Your task to perform on an android device: turn off javascript in the chrome app Image 0: 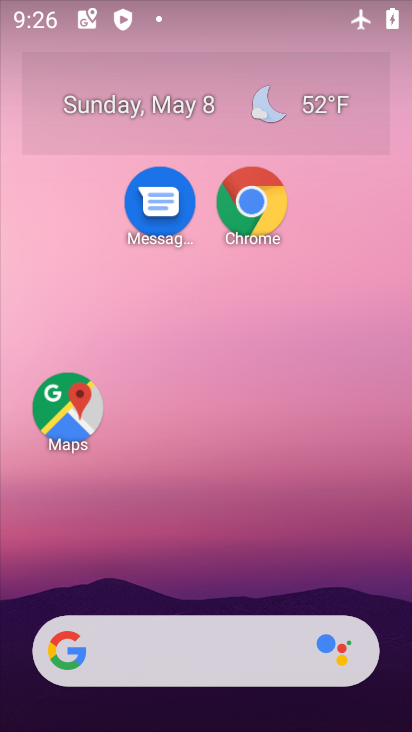
Step 0: drag from (234, 605) to (327, 4)
Your task to perform on an android device: turn off javascript in the chrome app Image 1: 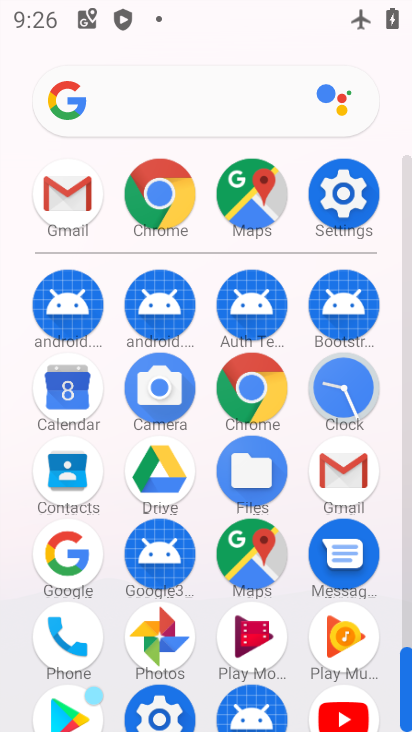
Step 1: click (259, 392)
Your task to perform on an android device: turn off javascript in the chrome app Image 2: 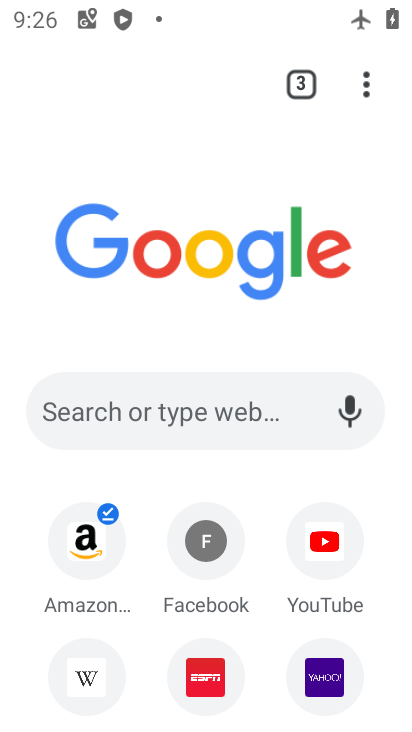
Step 2: click (358, 88)
Your task to perform on an android device: turn off javascript in the chrome app Image 3: 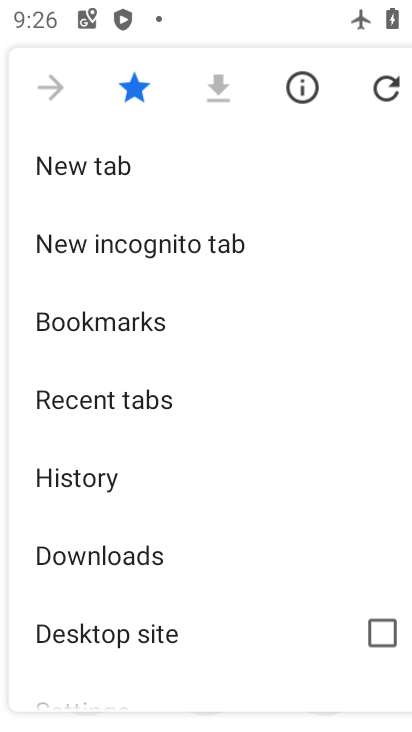
Step 3: drag from (242, 578) to (235, 100)
Your task to perform on an android device: turn off javascript in the chrome app Image 4: 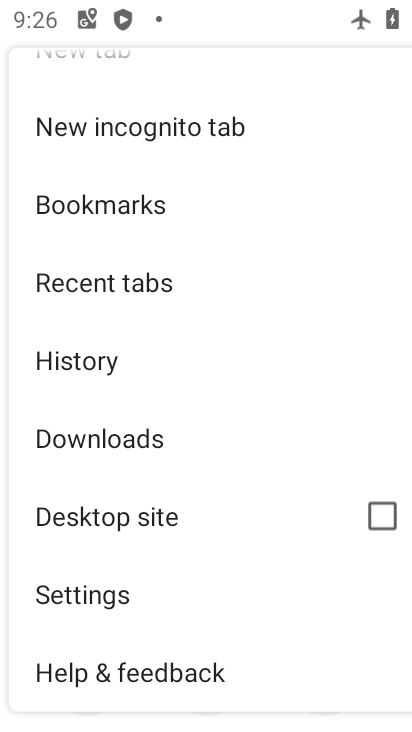
Step 4: click (83, 593)
Your task to perform on an android device: turn off javascript in the chrome app Image 5: 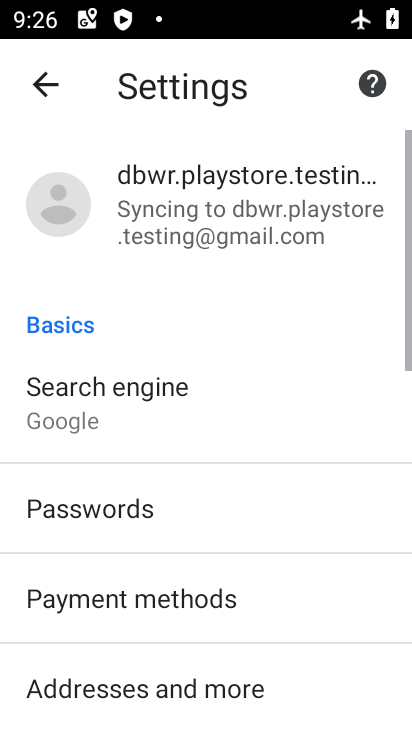
Step 5: drag from (185, 590) to (111, 57)
Your task to perform on an android device: turn off javascript in the chrome app Image 6: 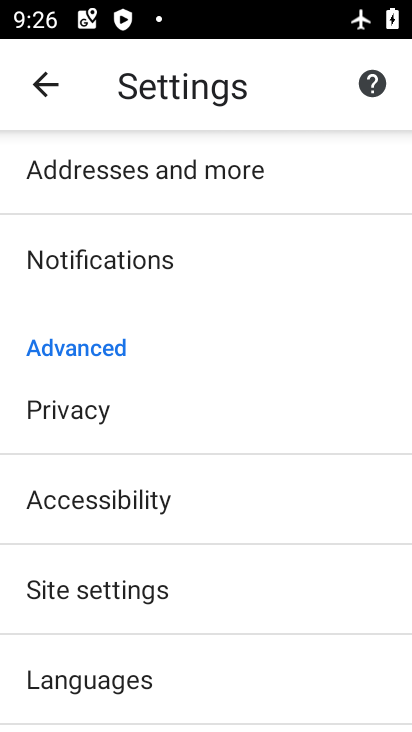
Step 6: click (120, 581)
Your task to perform on an android device: turn off javascript in the chrome app Image 7: 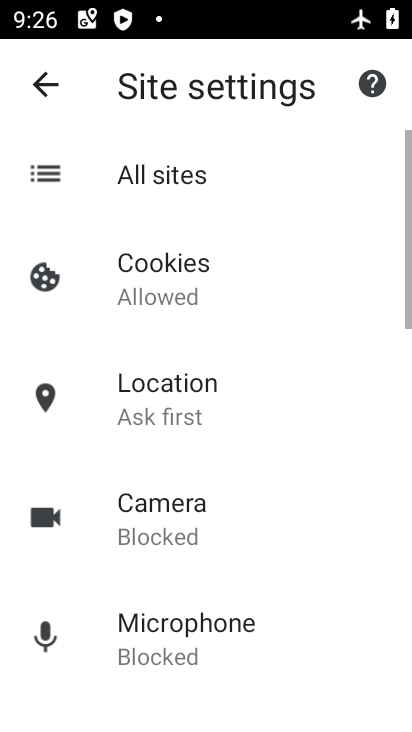
Step 7: drag from (171, 639) to (98, 88)
Your task to perform on an android device: turn off javascript in the chrome app Image 8: 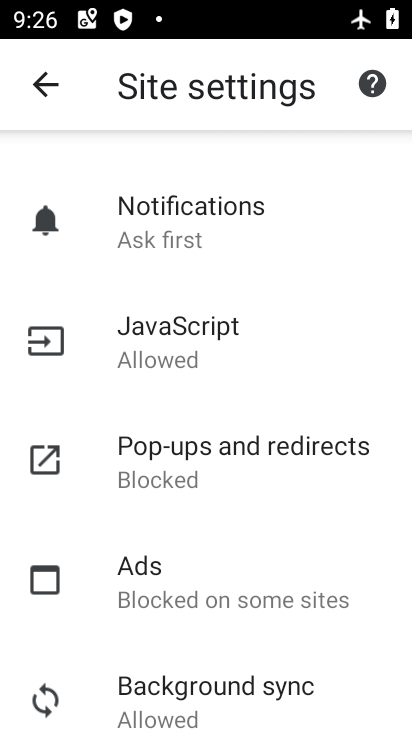
Step 8: click (145, 361)
Your task to perform on an android device: turn off javascript in the chrome app Image 9: 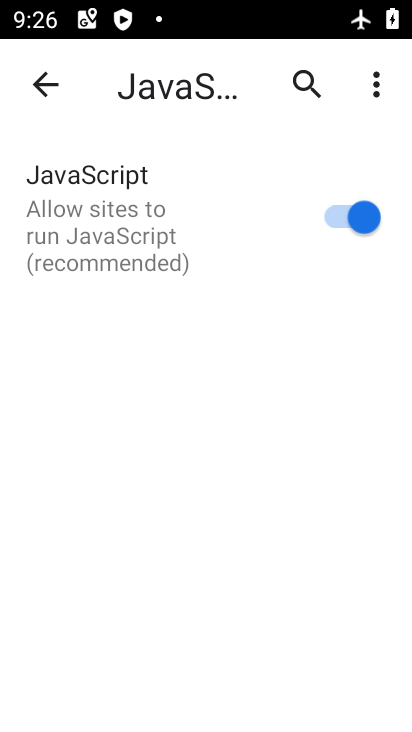
Step 9: click (358, 203)
Your task to perform on an android device: turn off javascript in the chrome app Image 10: 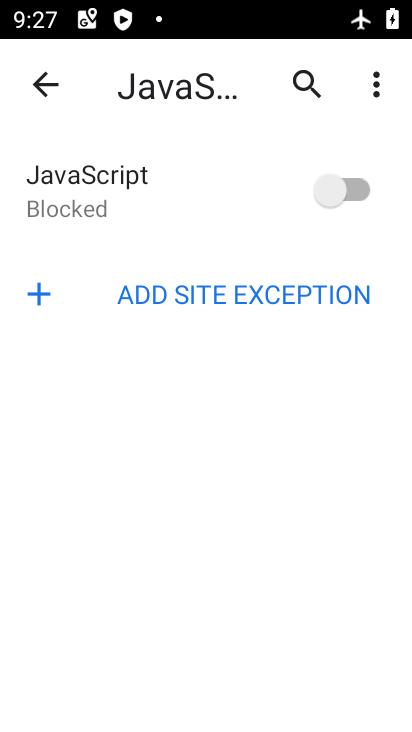
Step 10: task complete